Your task to perform on an android device: Open settings on Google Maps Image 0: 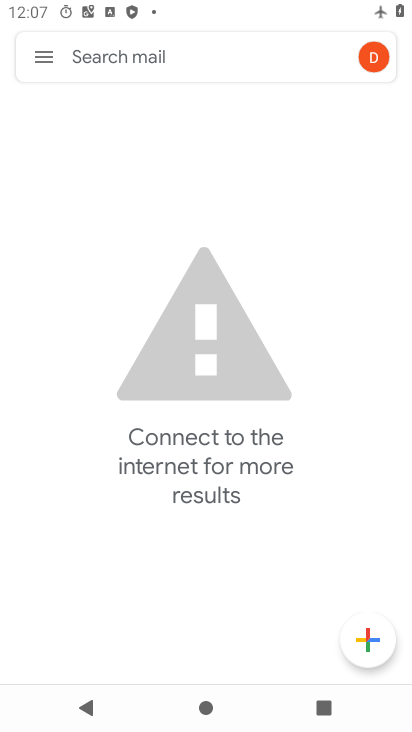
Step 0: press home button
Your task to perform on an android device: Open settings on Google Maps Image 1: 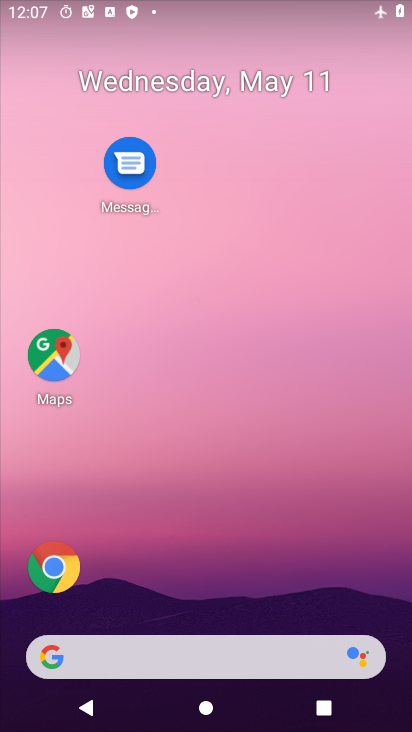
Step 1: drag from (129, 595) to (143, 150)
Your task to perform on an android device: Open settings on Google Maps Image 2: 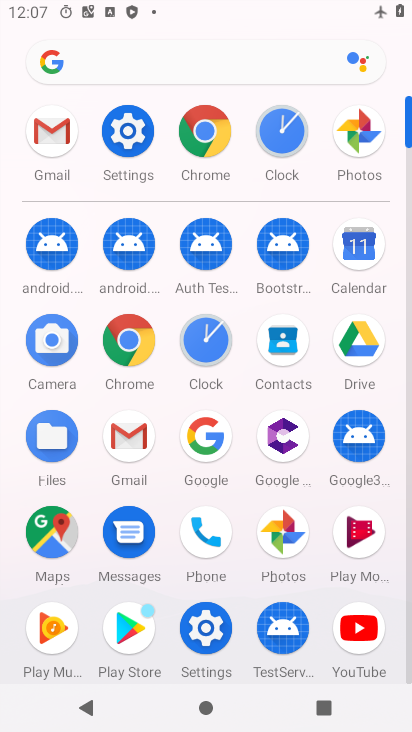
Step 2: click (66, 531)
Your task to perform on an android device: Open settings on Google Maps Image 3: 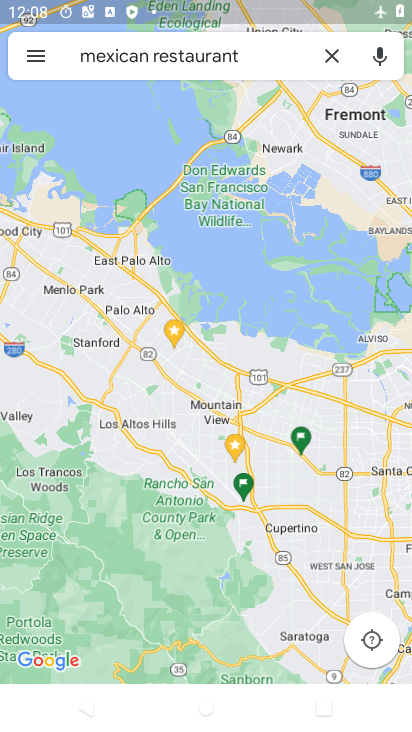
Step 3: click (32, 71)
Your task to perform on an android device: Open settings on Google Maps Image 4: 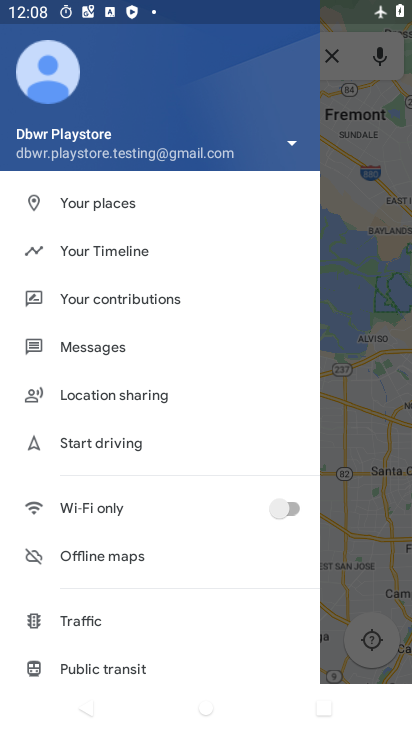
Step 4: drag from (109, 551) to (102, 337)
Your task to perform on an android device: Open settings on Google Maps Image 5: 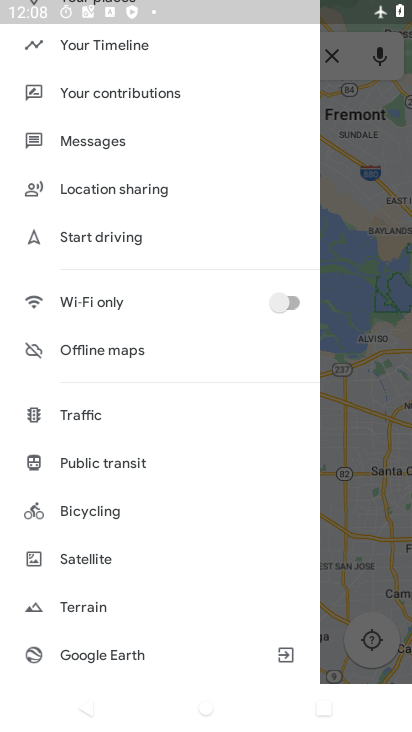
Step 5: drag from (107, 594) to (132, 387)
Your task to perform on an android device: Open settings on Google Maps Image 6: 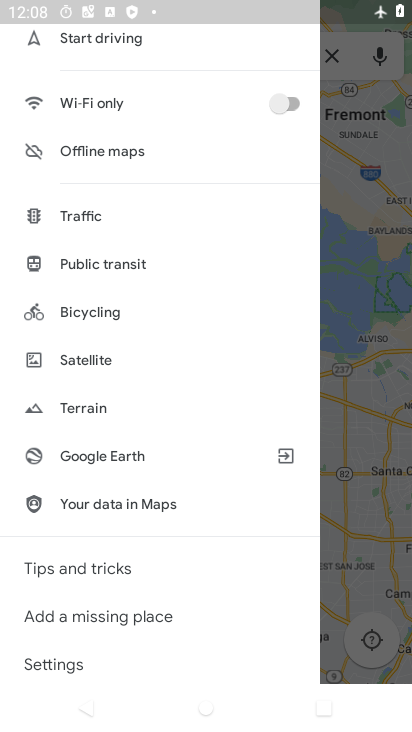
Step 6: click (104, 670)
Your task to perform on an android device: Open settings on Google Maps Image 7: 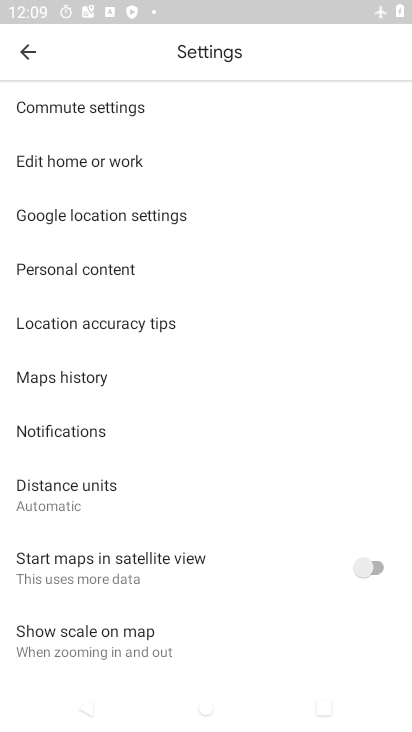
Step 7: task complete